Your task to perform on an android device: check storage Image 0: 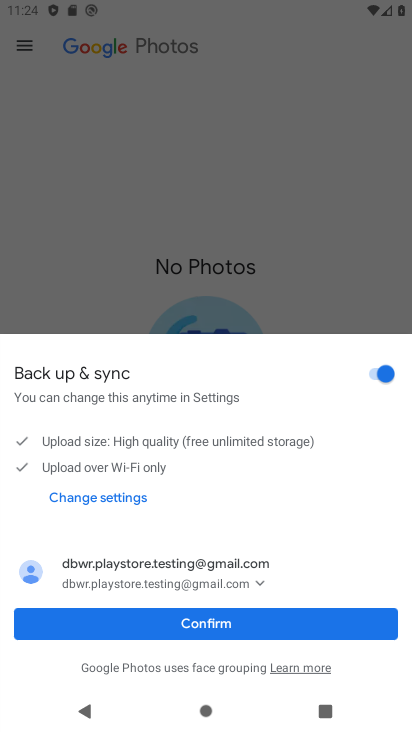
Step 0: press back button
Your task to perform on an android device: check storage Image 1: 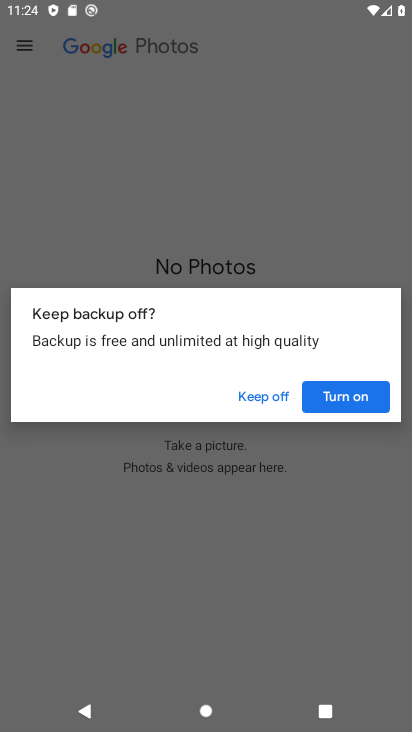
Step 1: press home button
Your task to perform on an android device: check storage Image 2: 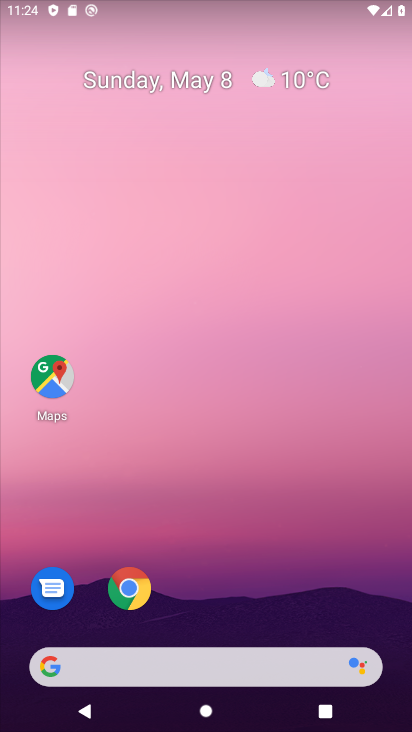
Step 2: drag from (162, 602) to (255, 78)
Your task to perform on an android device: check storage Image 3: 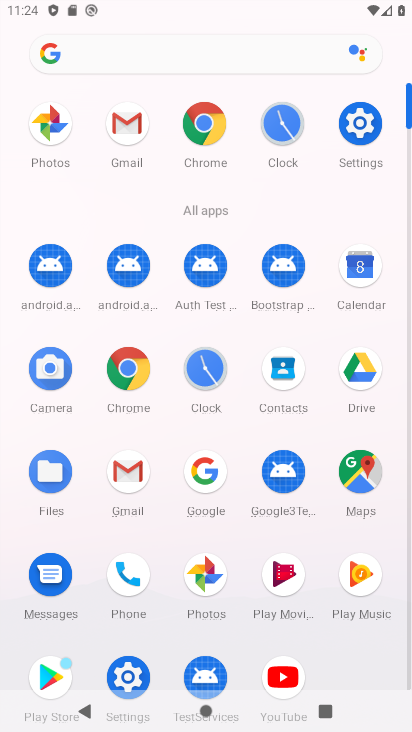
Step 3: click (366, 121)
Your task to perform on an android device: check storage Image 4: 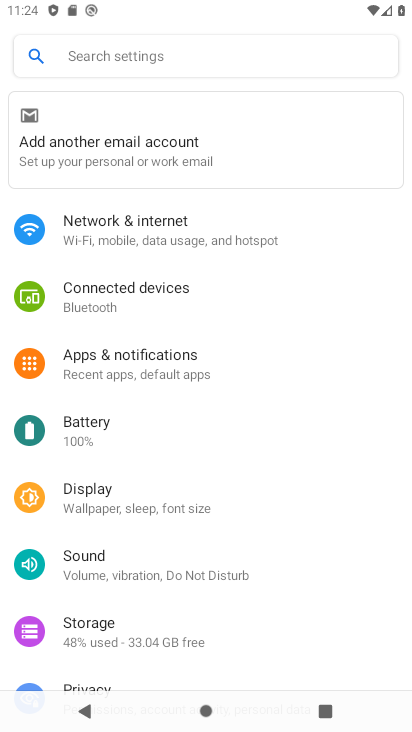
Step 4: drag from (113, 619) to (164, 294)
Your task to perform on an android device: check storage Image 5: 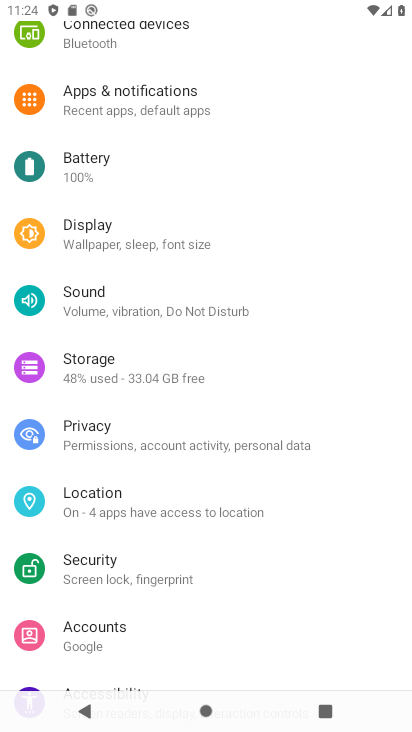
Step 5: click (111, 377)
Your task to perform on an android device: check storage Image 6: 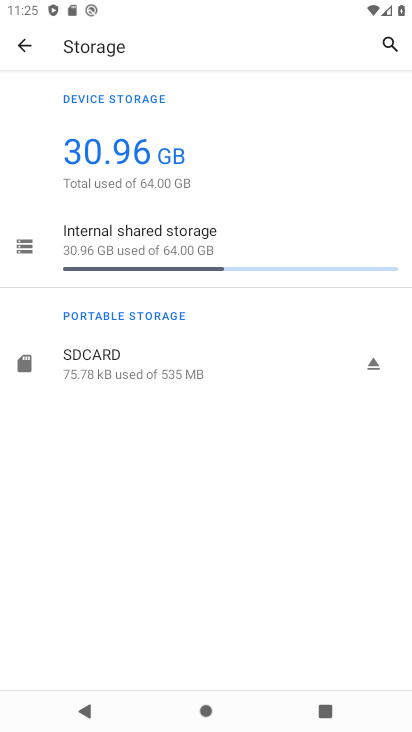
Step 6: task complete